Your task to perform on an android device: set an alarm Image 0: 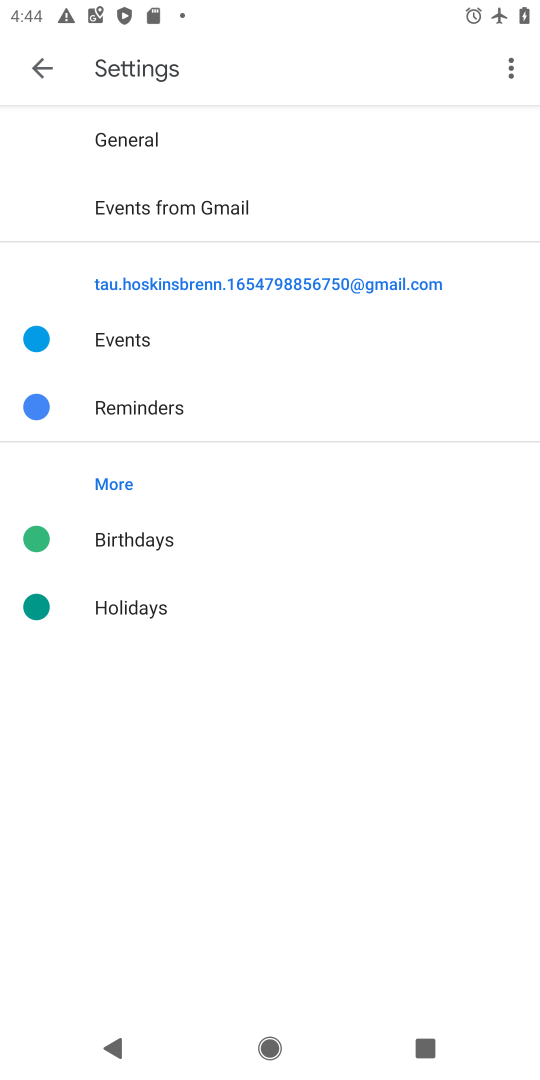
Step 0: press home button
Your task to perform on an android device: set an alarm Image 1: 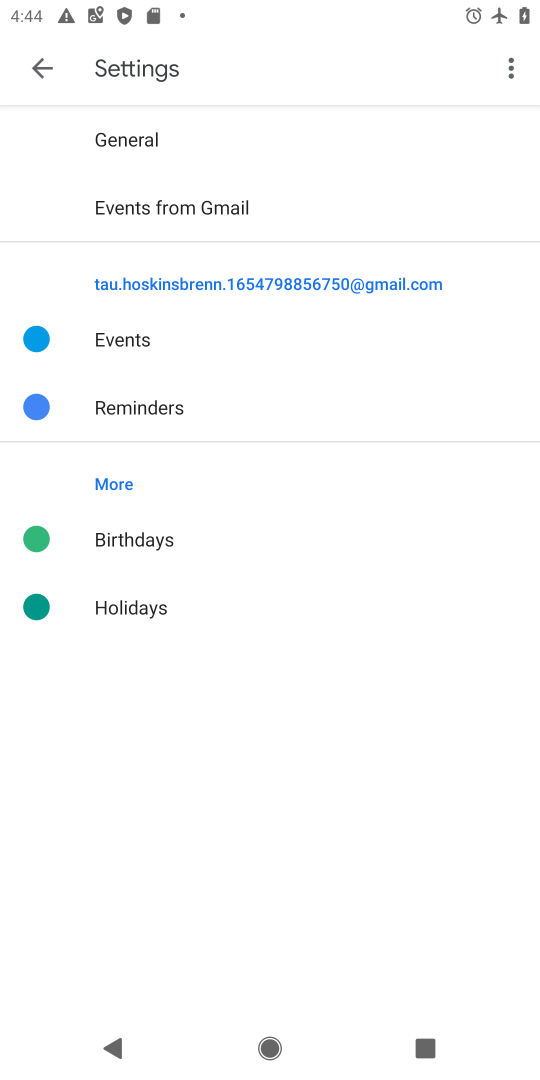
Step 1: press home button
Your task to perform on an android device: set an alarm Image 2: 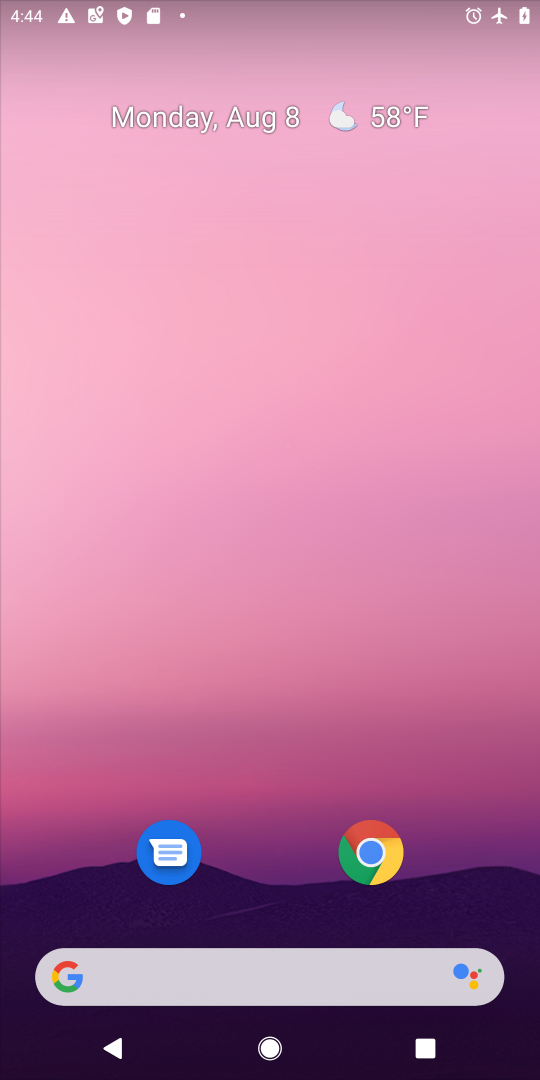
Step 2: drag from (266, 830) to (386, 142)
Your task to perform on an android device: set an alarm Image 3: 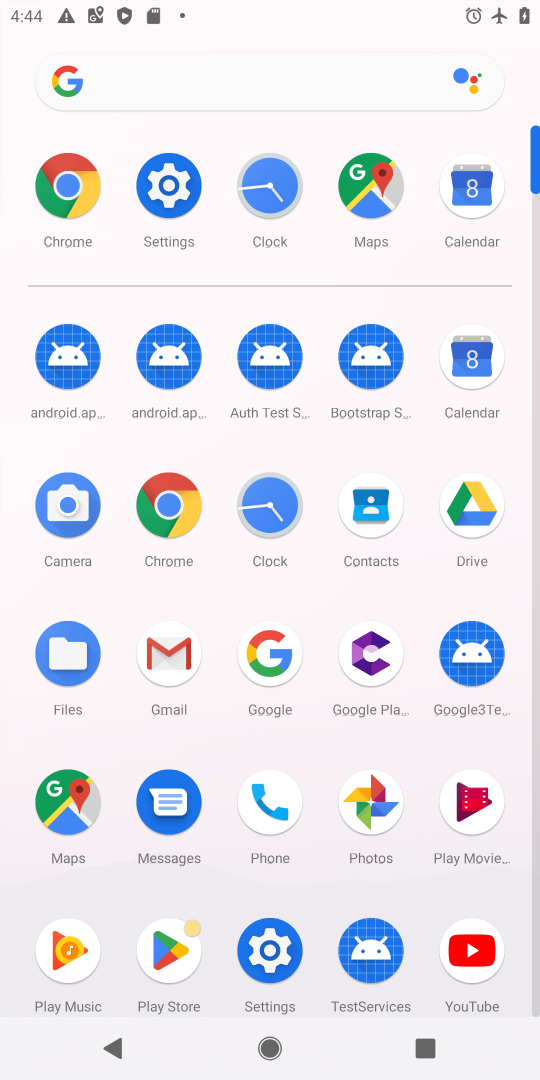
Step 3: click (271, 512)
Your task to perform on an android device: set an alarm Image 4: 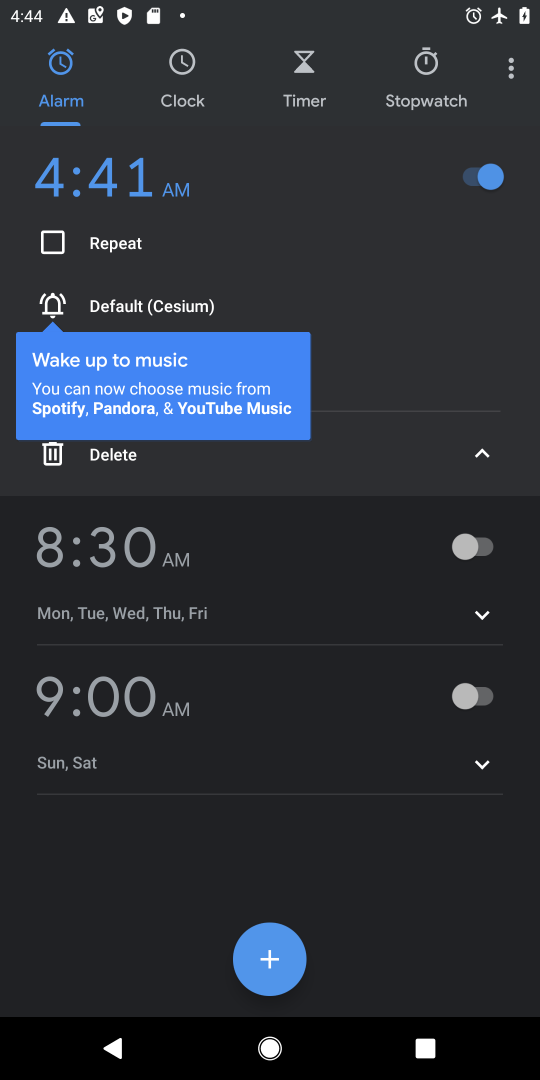
Step 4: task complete